Your task to perform on an android device: remove spam from my inbox in the gmail app Image 0: 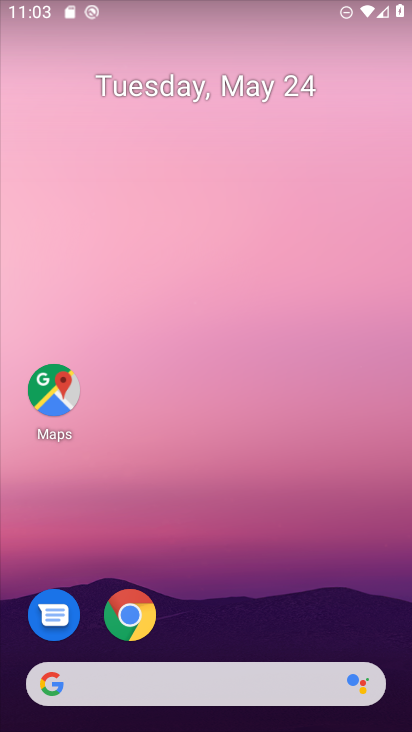
Step 0: press home button
Your task to perform on an android device: remove spam from my inbox in the gmail app Image 1: 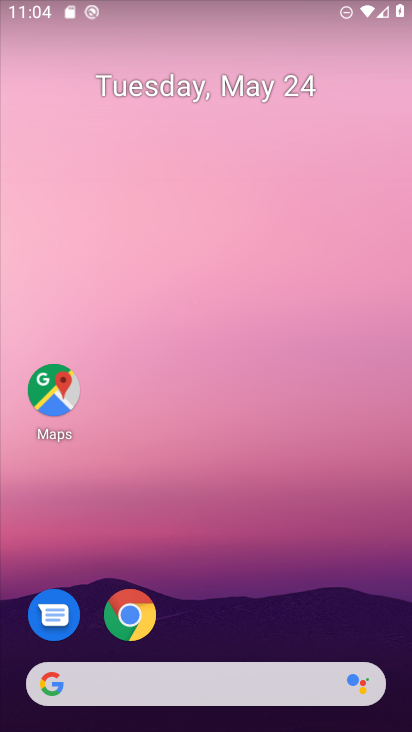
Step 1: drag from (241, 697) to (275, 0)
Your task to perform on an android device: remove spam from my inbox in the gmail app Image 2: 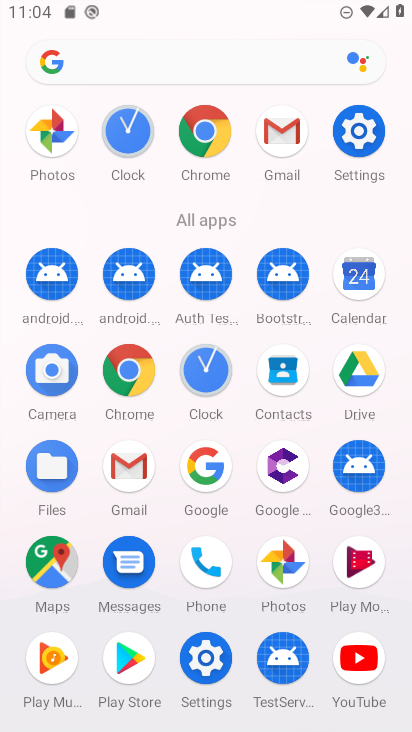
Step 2: click (286, 127)
Your task to perform on an android device: remove spam from my inbox in the gmail app Image 3: 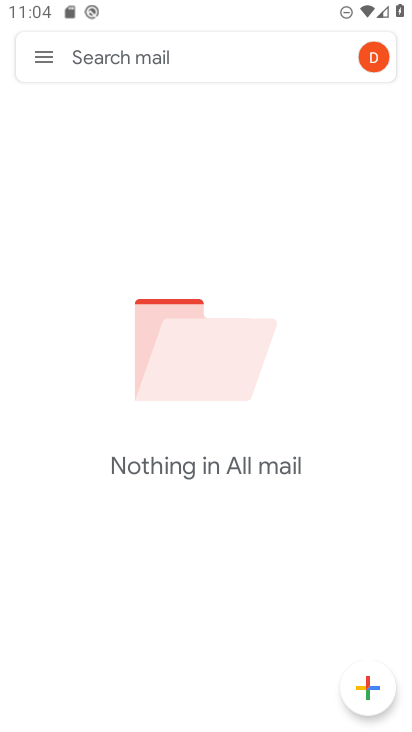
Step 3: click (41, 64)
Your task to perform on an android device: remove spam from my inbox in the gmail app Image 4: 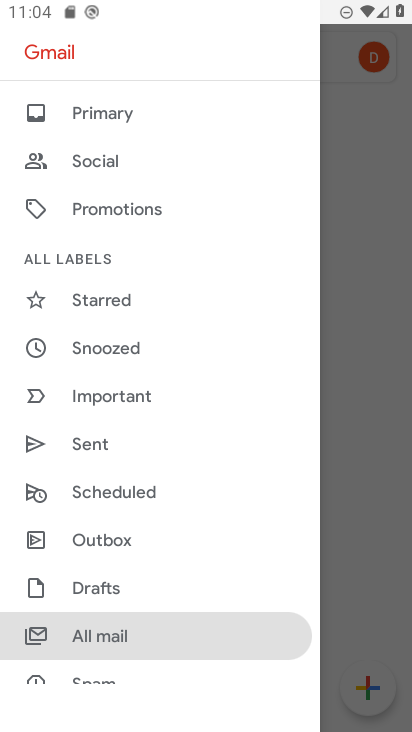
Step 4: drag from (142, 616) to (162, 548)
Your task to perform on an android device: remove spam from my inbox in the gmail app Image 5: 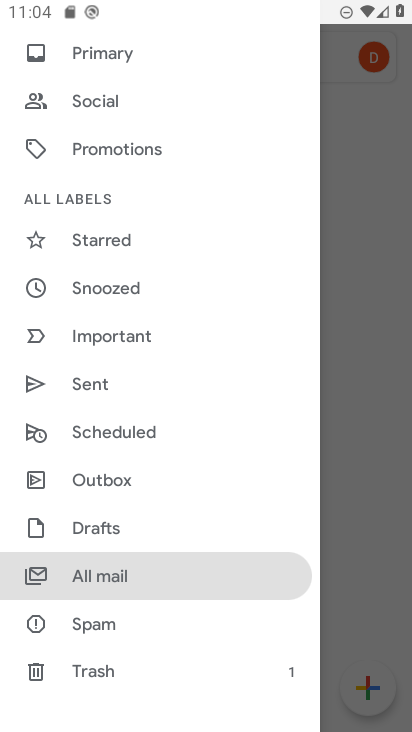
Step 5: click (110, 616)
Your task to perform on an android device: remove spam from my inbox in the gmail app Image 6: 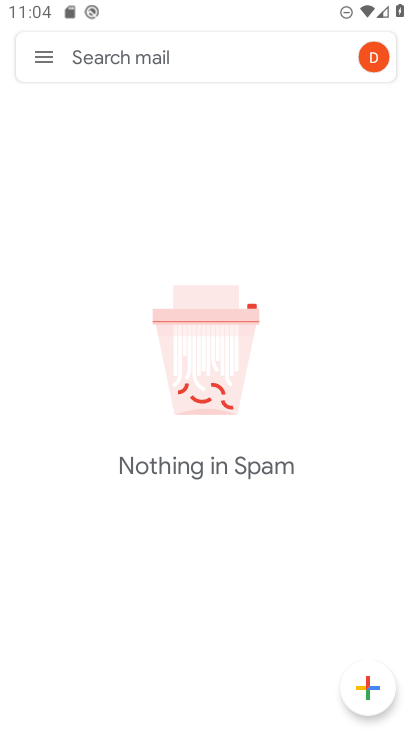
Step 6: task complete